Your task to perform on an android device: Go to location settings Image 0: 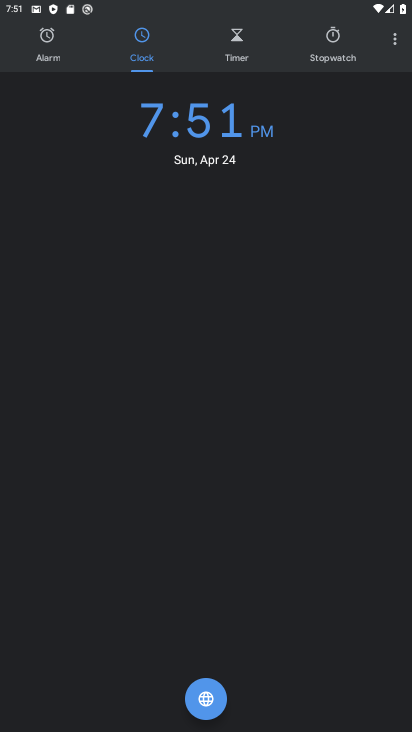
Step 0: press home button
Your task to perform on an android device: Go to location settings Image 1: 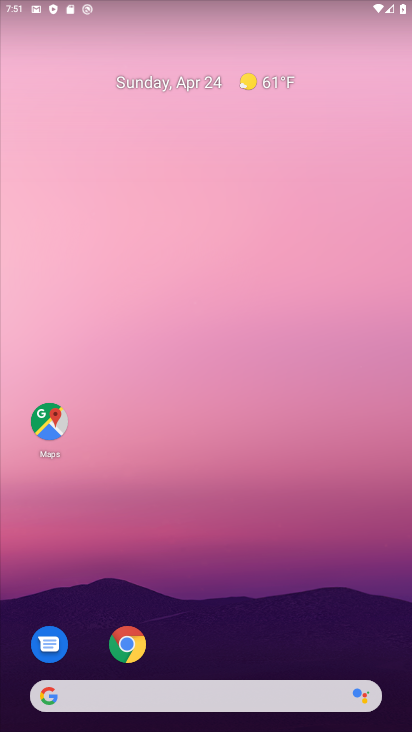
Step 1: drag from (236, 687) to (151, 138)
Your task to perform on an android device: Go to location settings Image 2: 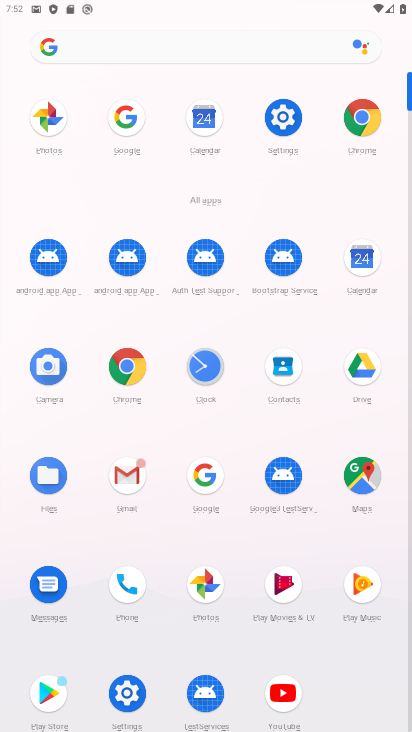
Step 2: click (289, 119)
Your task to perform on an android device: Go to location settings Image 3: 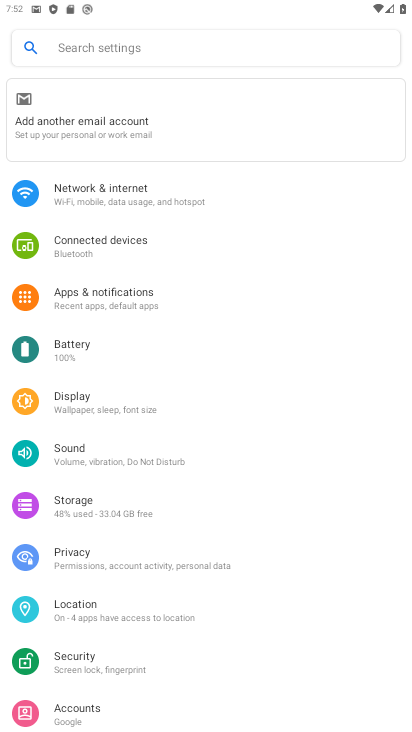
Step 3: click (93, 615)
Your task to perform on an android device: Go to location settings Image 4: 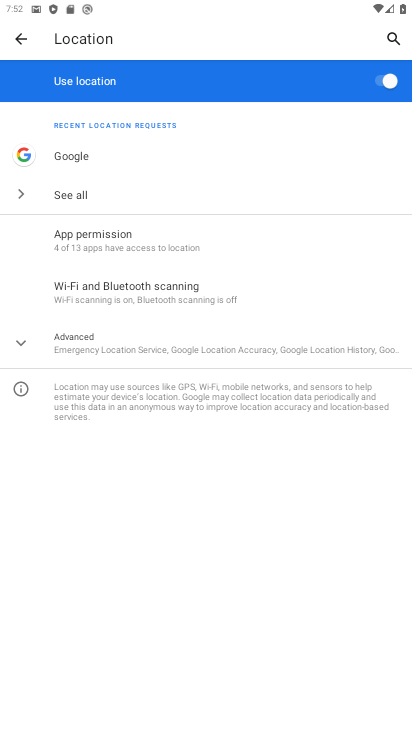
Step 4: task complete